Your task to perform on an android device: toggle notification dots Image 0: 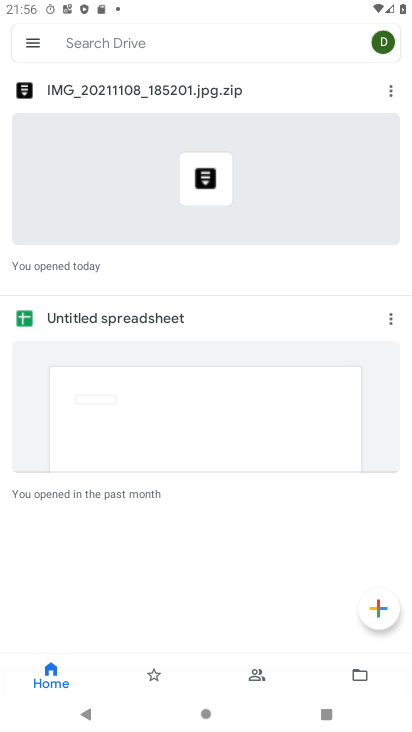
Step 0: press home button
Your task to perform on an android device: toggle notification dots Image 1: 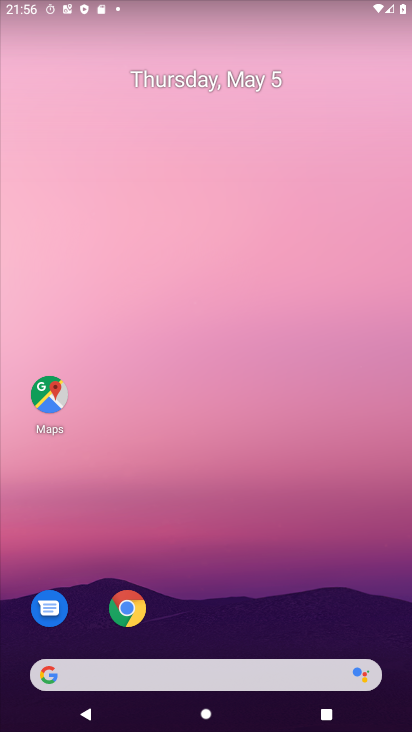
Step 1: drag from (251, 652) to (236, 1)
Your task to perform on an android device: toggle notification dots Image 2: 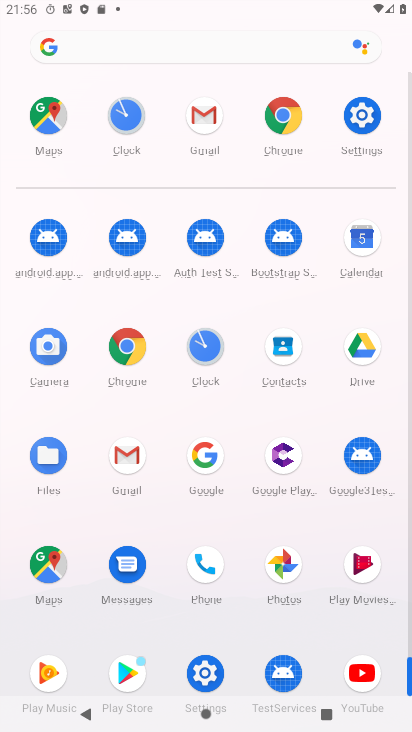
Step 2: click (359, 116)
Your task to perform on an android device: toggle notification dots Image 3: 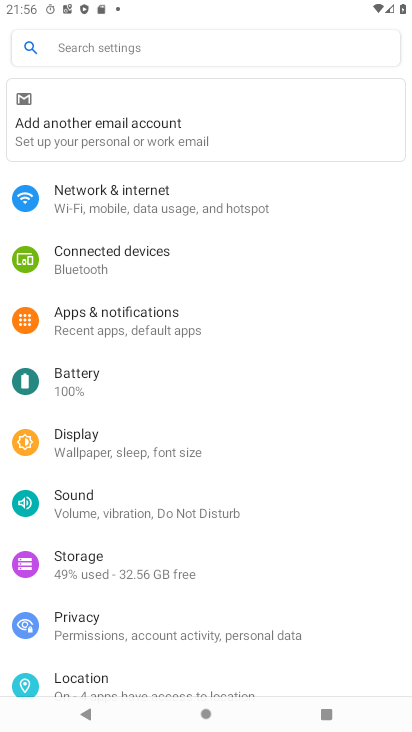
Step 3: click (130, 329)
Your task to perform on an android device: toggle notification dots Image 4: 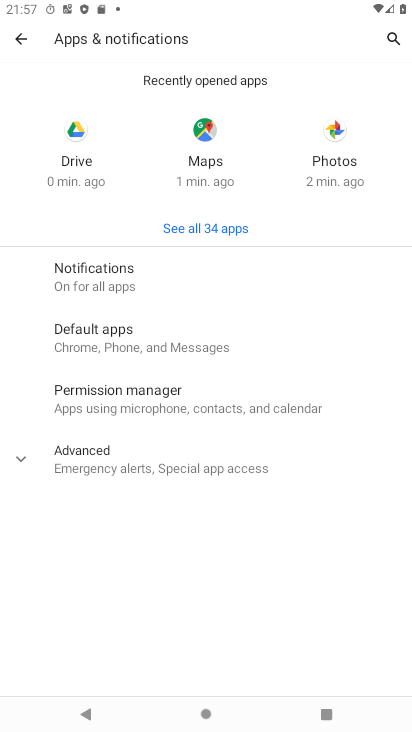
Step 4: click (127, 296)
Your task to perform on an android device: toggle notification dots Image 5: 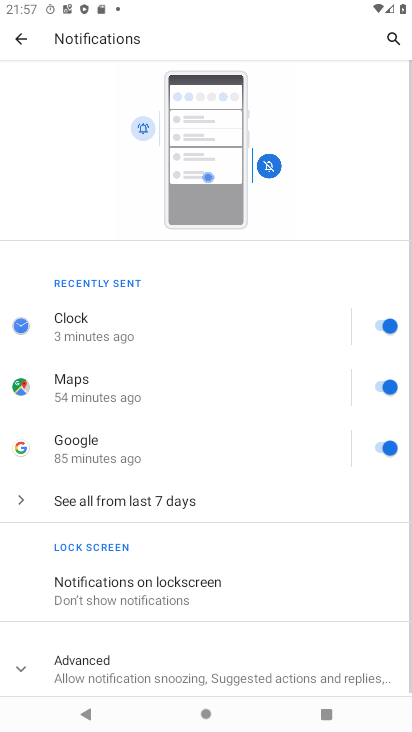
Step 5: drag from (172, 615) to (186, 270)
Your task to perform on an android device: toggle notification dots Image 6: 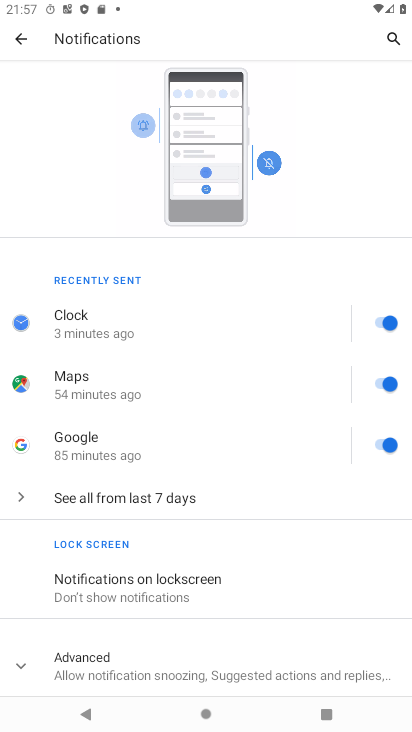
Step 6: click (184, 680)
Your task to perform on an android device: toggle notification dots Image 7: 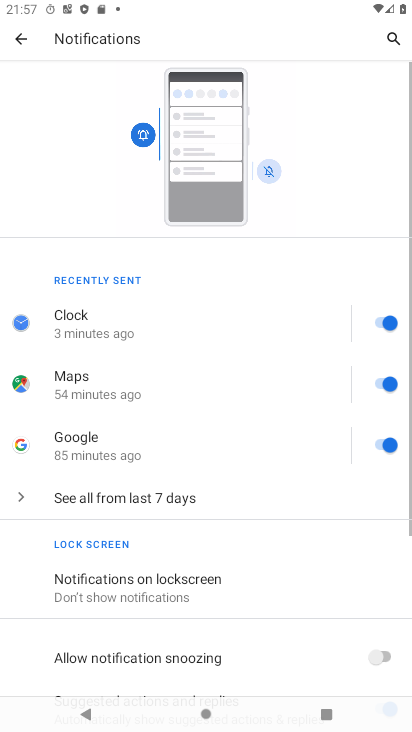
Step 7: drag from (184, 680) to (224, 190)
Your task to perform on an android device: toggle notification dots Image 8: 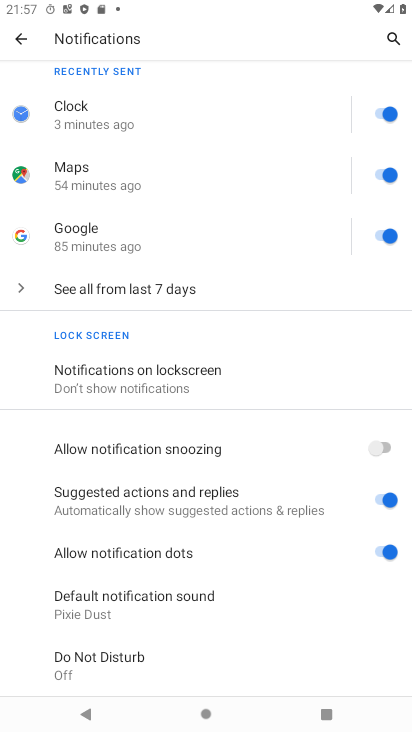
Step 8: click (380, 550)
Your task to perform on an android device: toggle notification dots Image 9: 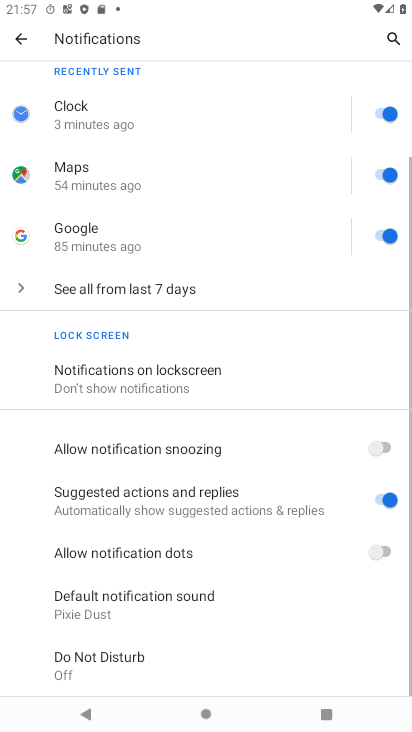
Step 9: task complete